Your task to perform on an android device: Check the news Image 0: 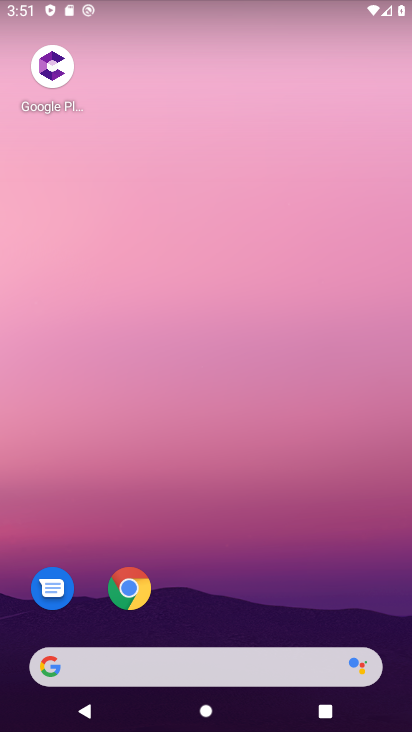
Step 0: drag from (217, 612) to (234, 187)
Your task to perform on an android device: Check the news Image 1: 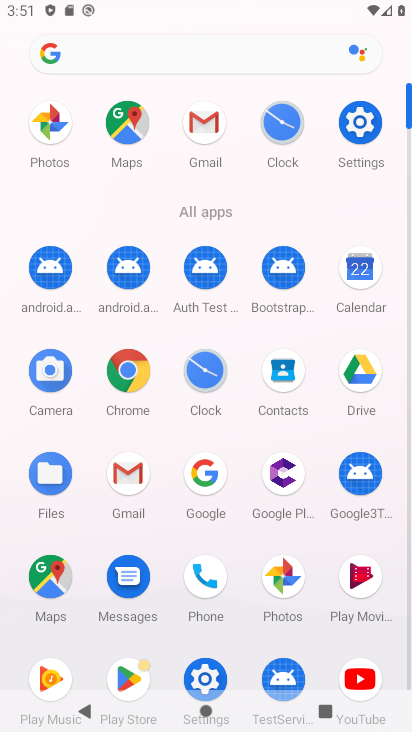
Step 1: click (201, 499)
Your task to perform on an android device: Check the news Image 2: 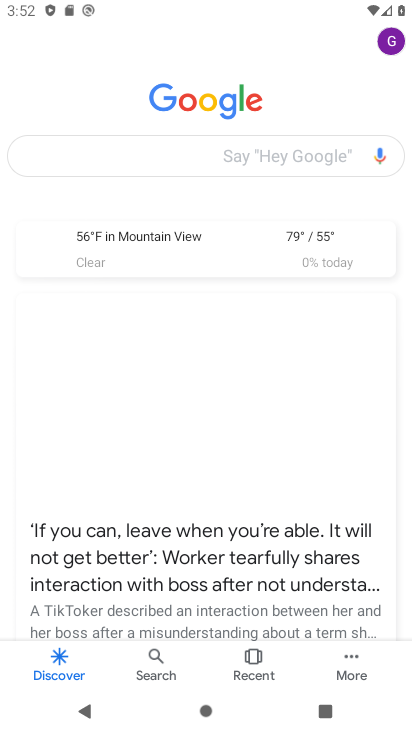
Step 2: click (172, 171)
Your task to perform on an android device: Check the news Image 3: 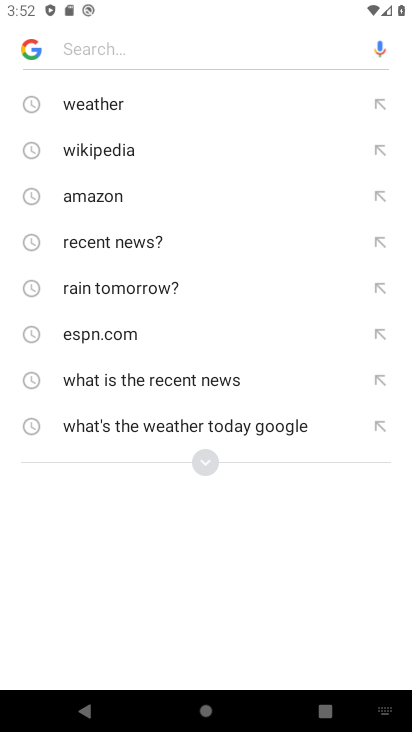
Step 3: click (102, 249)
Your task to perform on an android device: Check the news Image 4: 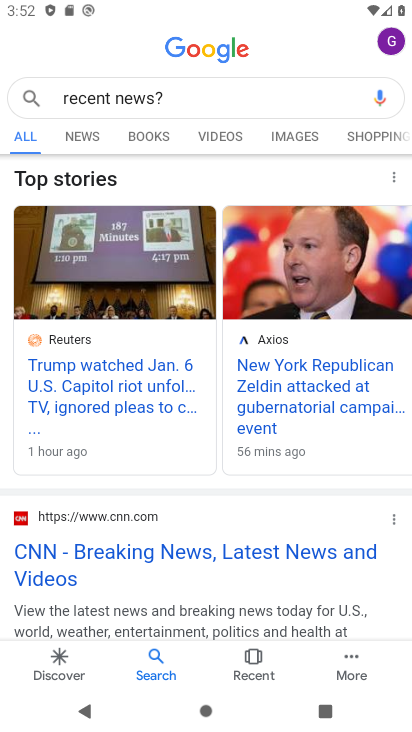
Step 4: click (89, 139)
Your task to perform on an android device: Check the news Image 5: 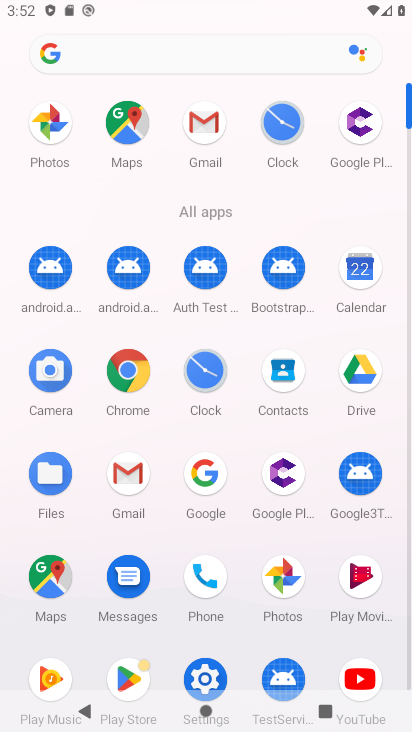
Step 5: click (213, 468)
Your task to perform on an android device: Check the news Image 6: 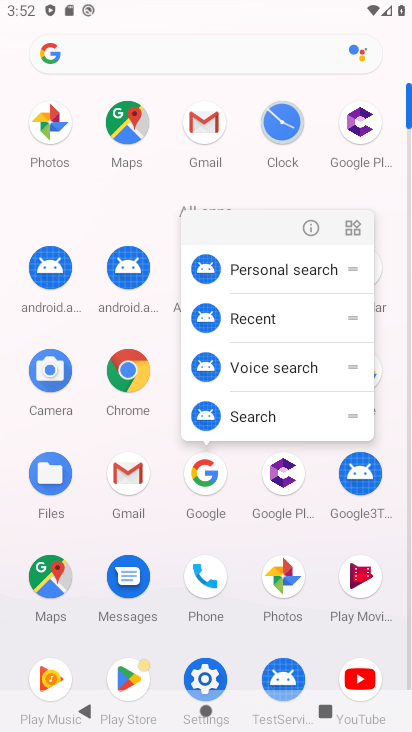
Step 6: click (211, 476)
Your task to perform on an android device: Check the news Image 7: 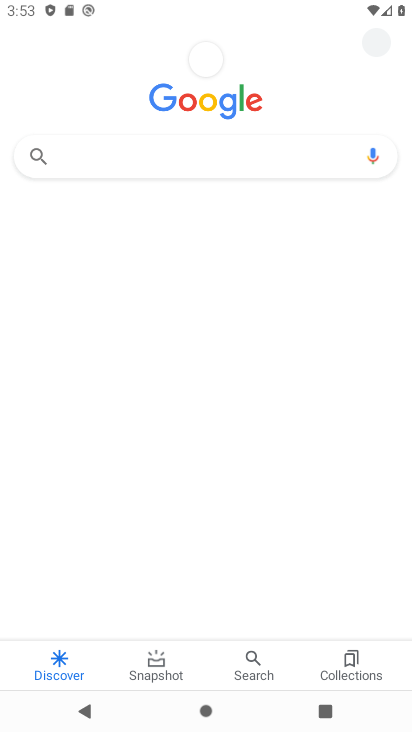
Step 7: click (161, 168)
Your task to perform on an android device: Check the news Image 8: 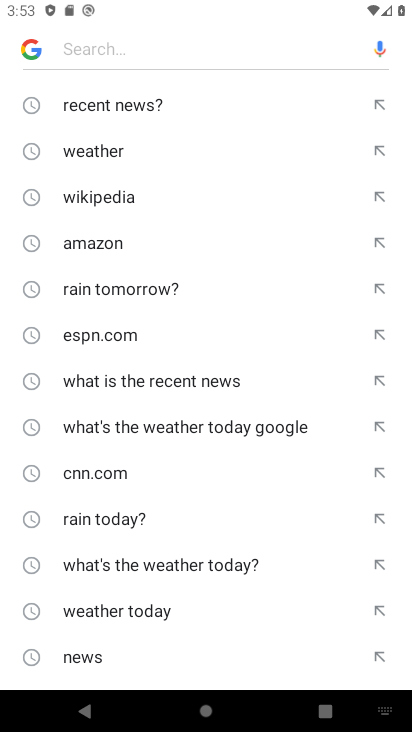
Step 8: click (140, 117)
Your task to perform on an android device: Check the news Image 9: 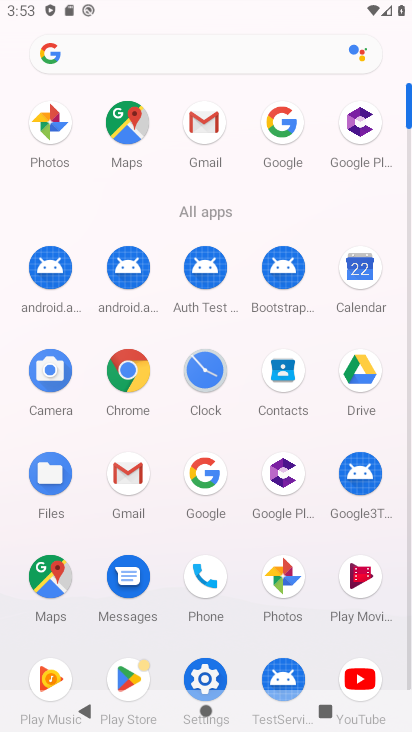
Step 9: click (272, 138)
Your task to perform on an android device: Check the news Image 10: 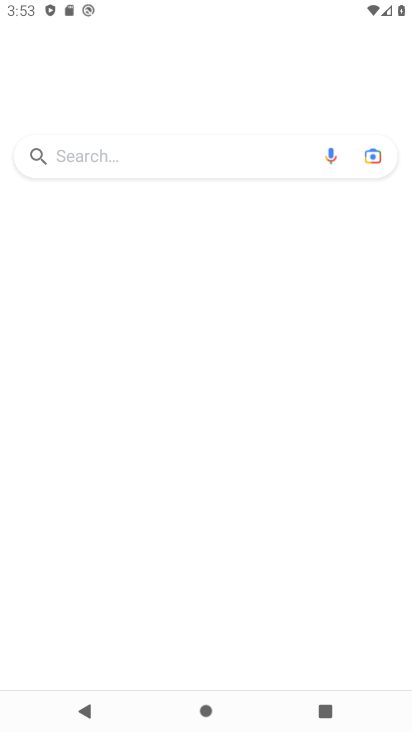
Step 10: click (115, 153)
Your task to perform on an android device: Check the news Image 11: 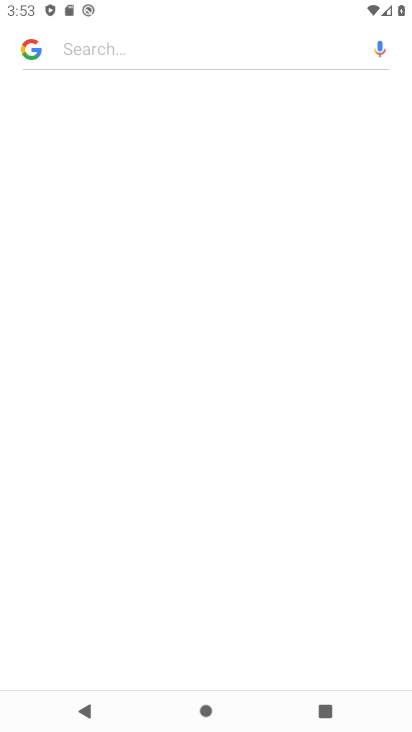
Step 11: click (149, 53)
Your task to perform on an android device: Check the news Image 12: 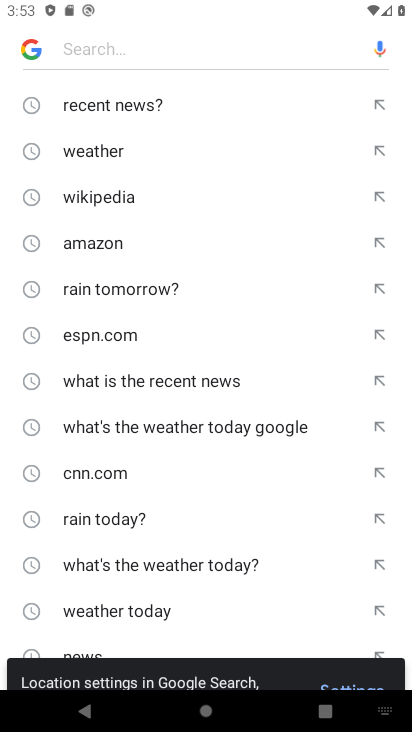
Step 12: click (123, 114)
Your task to perform on an android device: Check the news Image 13: 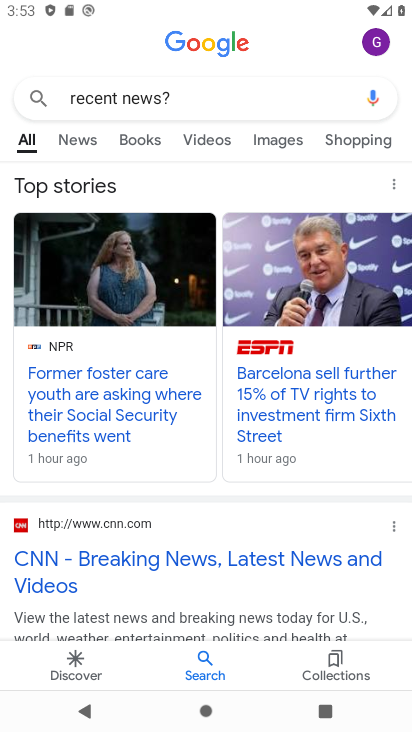
Step 13: click (89, 138)
Your task to perform on an android device: Check the news Image 14: 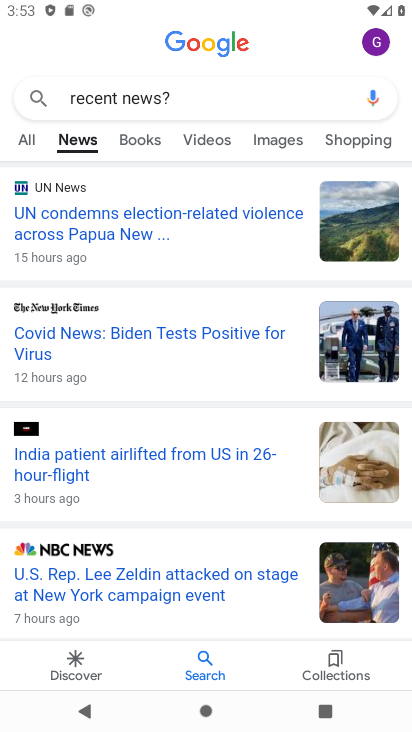
Step 14: task complete